Your task to perform on an android device: turn on showing notifications on the lock screen Image 0: 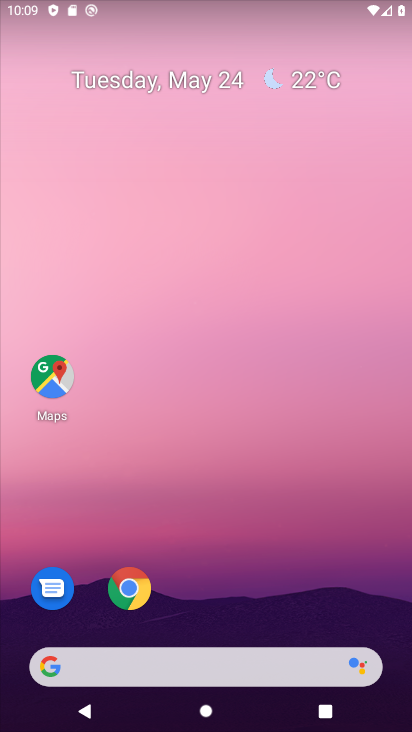
Step 0: click (196, 614)
Your task to perform on an android device: turn on showing notifications on the lock screen Image 1: 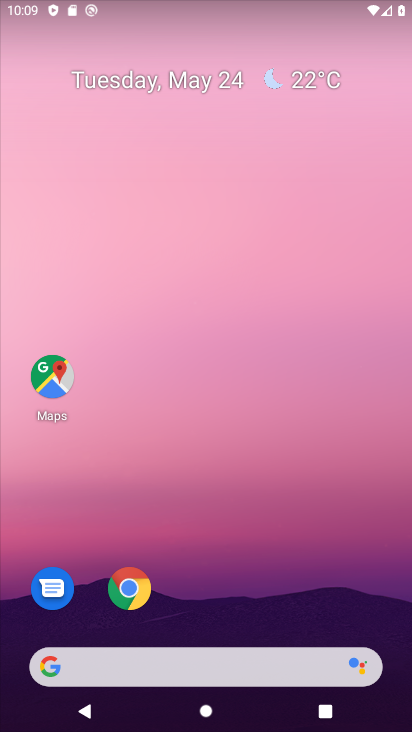
Step 1: drag from (196, 614) to (388, 240)
Your task to perform on an android device: turn on showing notifications on the lock screen Image 2: 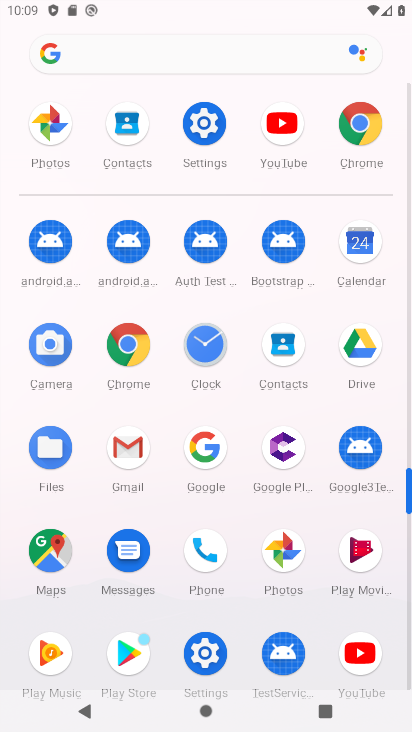
Step 2: click (204, 142)
Your task to perform on an android device: turn on showing notifications on the lock screen Image 3: 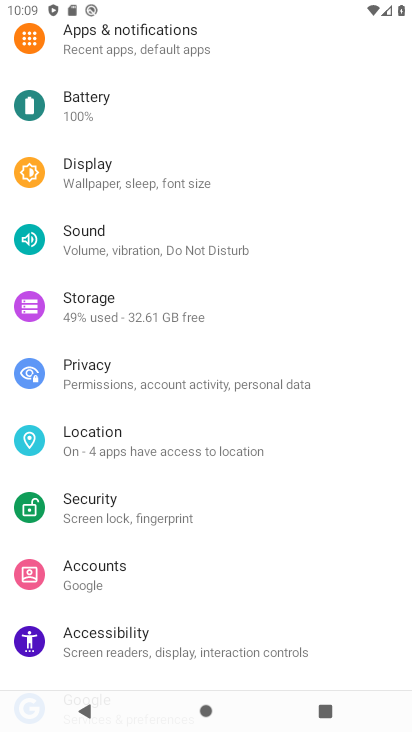
Step 3: click (156, 53)
Your task to perform on an android device: turn on showing notifications on the lock screen Image 4: 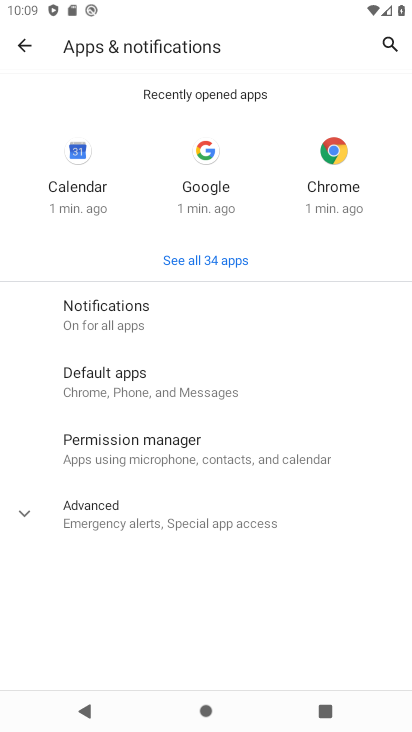
Step 4: click (166, 331)
Your task to perform on an android device: turn on showing notifications on the lock screen Image 5: 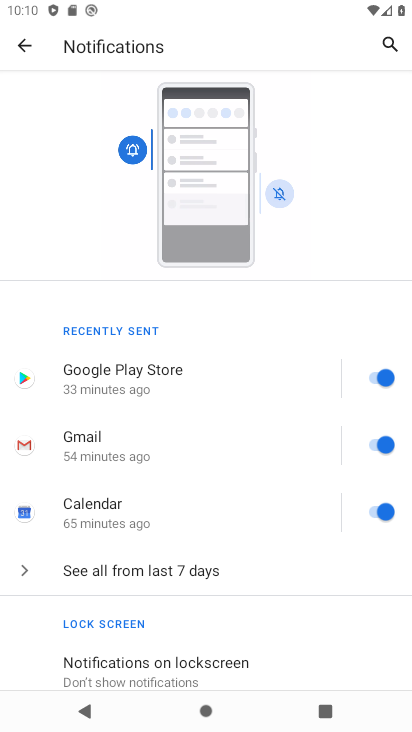
Step 5: click (142, 657)
Your task to perform on an android device: turn on showing notifications on the lock screen Image 6: 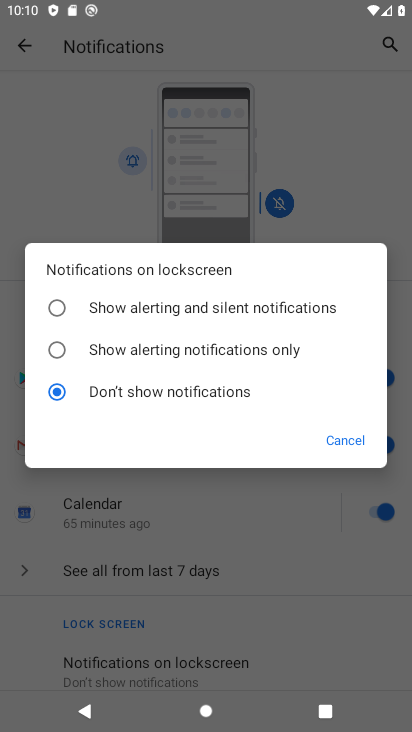
Step 6: click (250, 307)
Your task to perform on an android device: turn on showing notifications on the lock screen Image 7: 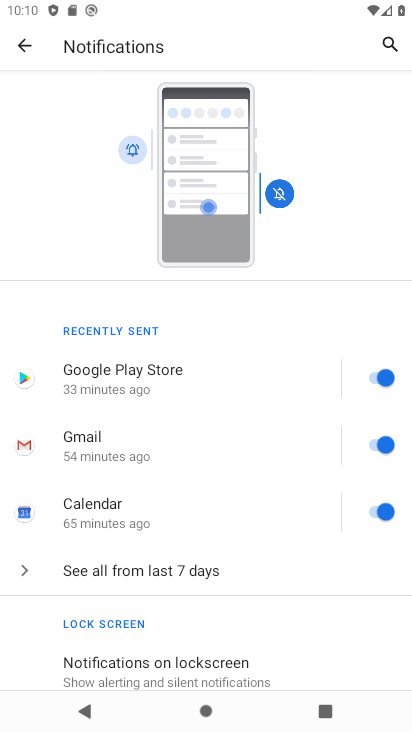
Step 7: task complete